Your task to perform on an android device: move a message to another label in the gmail app Image 0: 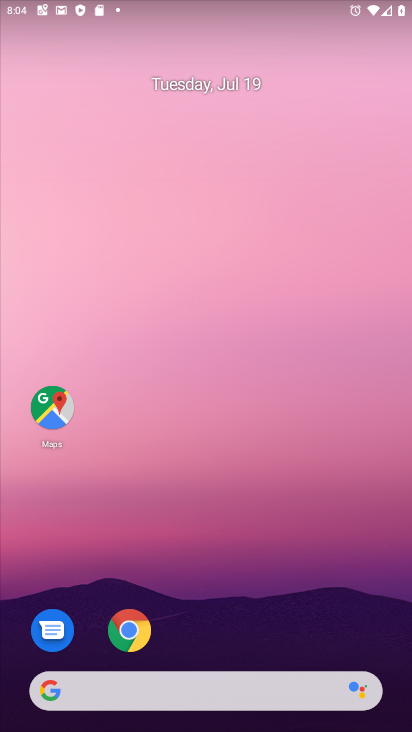
Step 0: drag from (167, 499) to (151, 8)
Your task to perform on an android device: move a message to another label in the gmail app Image 1: 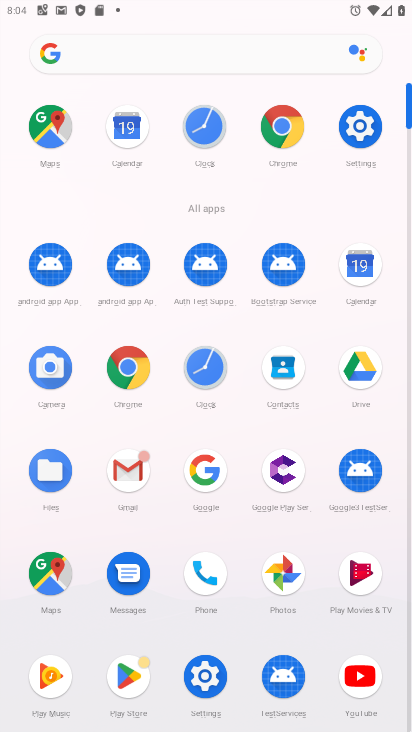
Step 1: click (132, 474)
Your task to perform on an android device: move a message to another label in the gmail app Image 2: 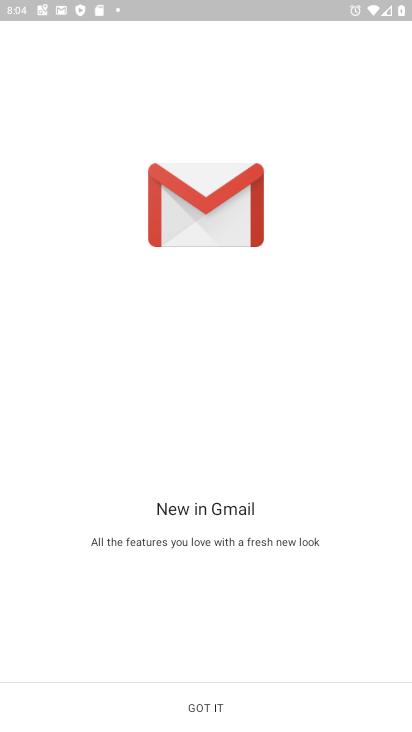
Step 2: click (202, 711)
Your task to perform on an android device: move a message to another label in the gmail app Image 3: 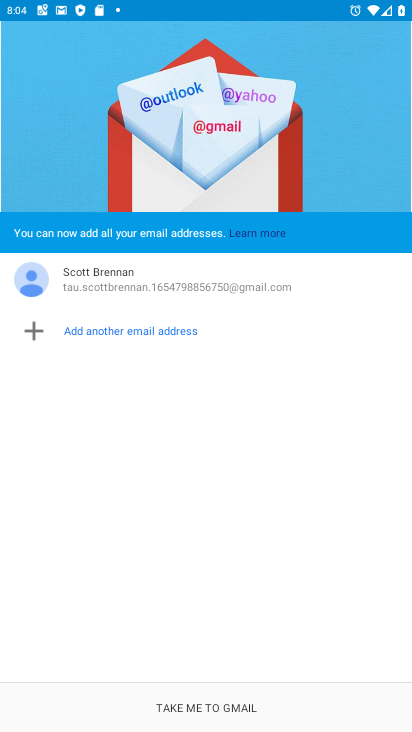
Step 3: click (201, 709)
Your task to perform on an android device: move a message to another label in the gmail app Image 4: 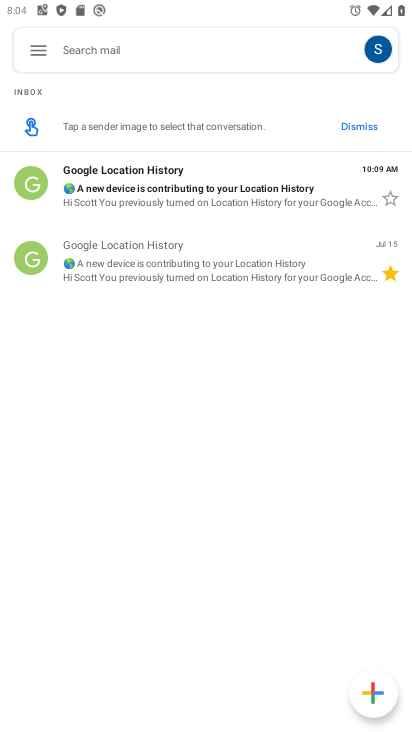
Step 4: click (149, 198)
Your task to perform on an android device: move a message to another label in the gmail app Image 5: 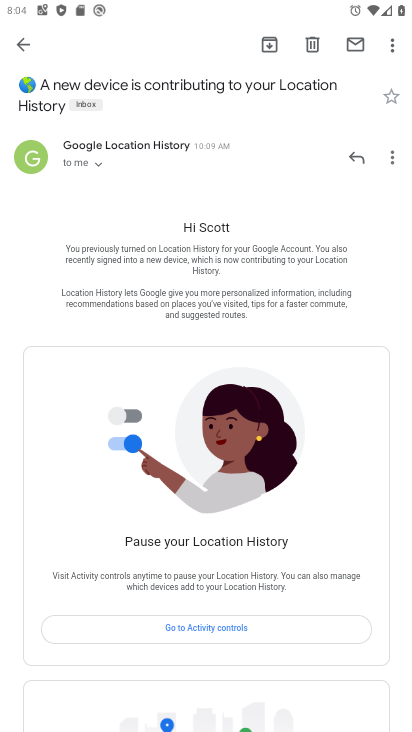
Step 5: click (76, 105)
Your task to perform on an android device: move a message to another label in the gmail app Image 6: 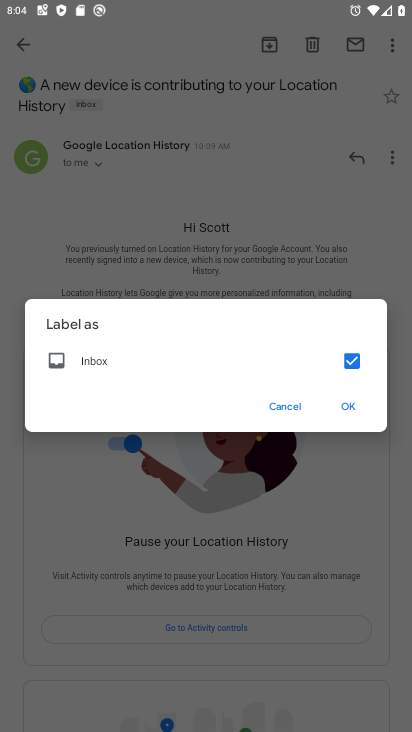
Step 6: click (350, 360)
Your task to perform on an android device: move a message to another label in the gmail app Image 7: 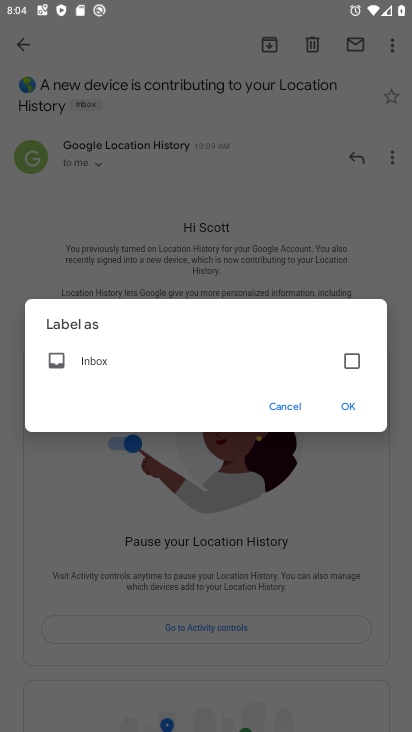
Step 7: click (350, 412)
Your task to perform on an android device: move a message to another label in the gmail app Image 8: 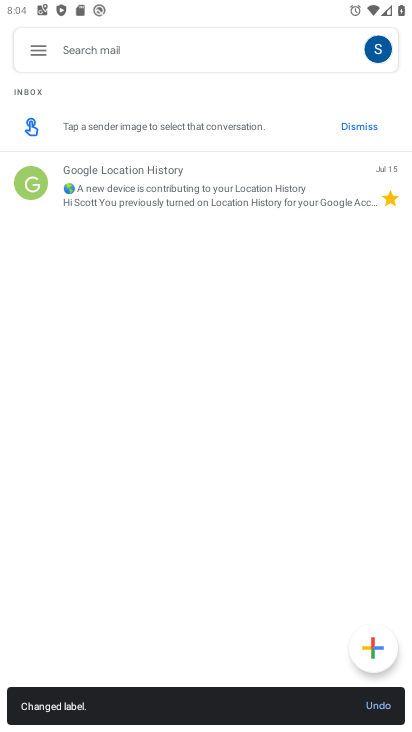
Step 8: task complete